Your task to perform on an android device: turn on data saver in the chrome app Image 0: 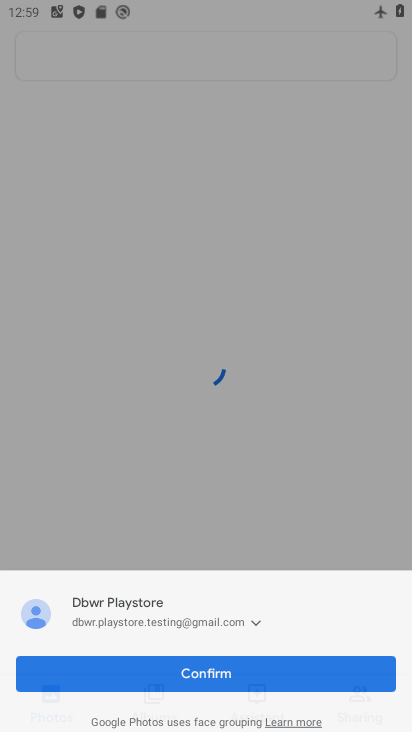
Step 0: press home button
Your task to perform on an android device: turn on data saver in the chrome app Image 1: 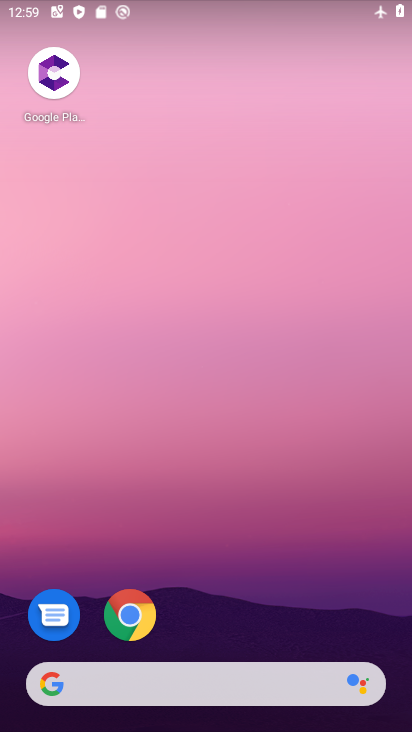
Step 1: click (130, 608)
Your task to perform on an android device: turn on data saver in the chrome app Image 2: 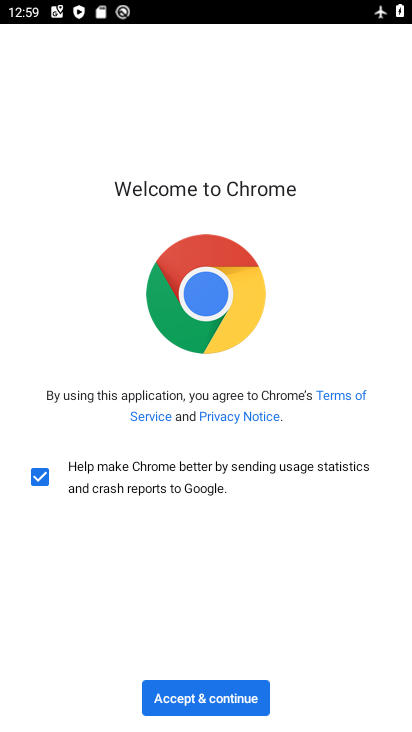
Step 2: click (175, 690)
Your task to perform on an android device: turn on data saver in the chrome app Image 3: 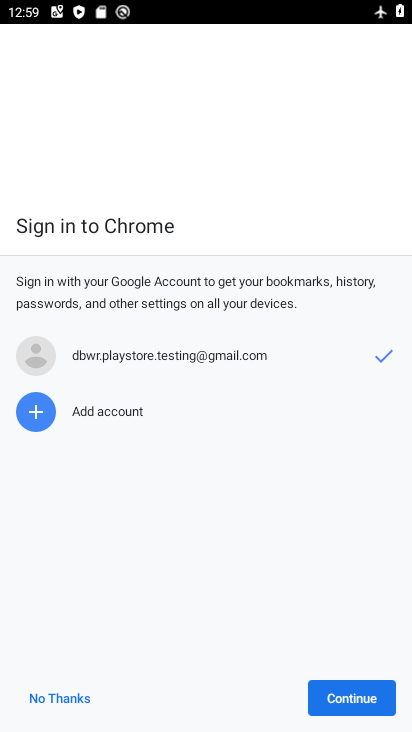
Step 3: click (356, 698)
Your task to perform on an android device: turn on data saver in the chrome app Image 4: 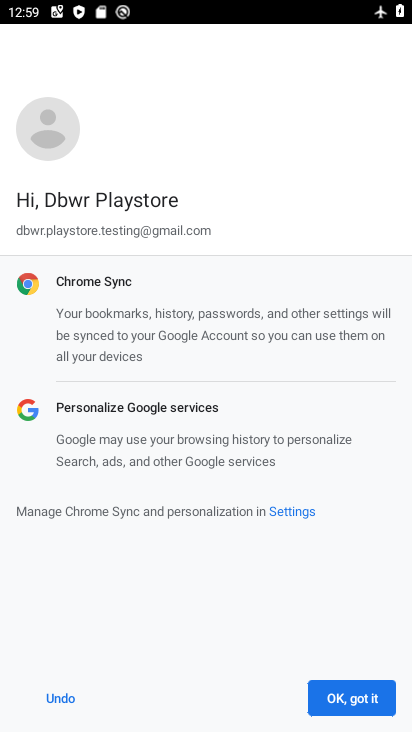
Step 4: click (357, 679)
Your task to perform on an android device: turn on data saver in the chrome app Image 5: 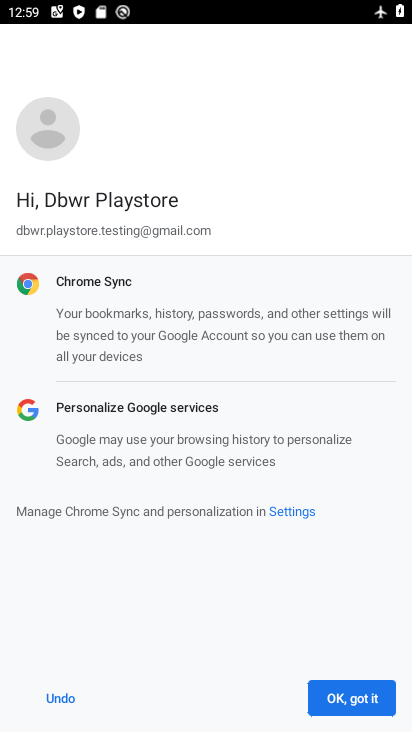
Step 5: click (355, 695)
Your task to perform on an android device: turn on data saver in the chrome app Image 6: 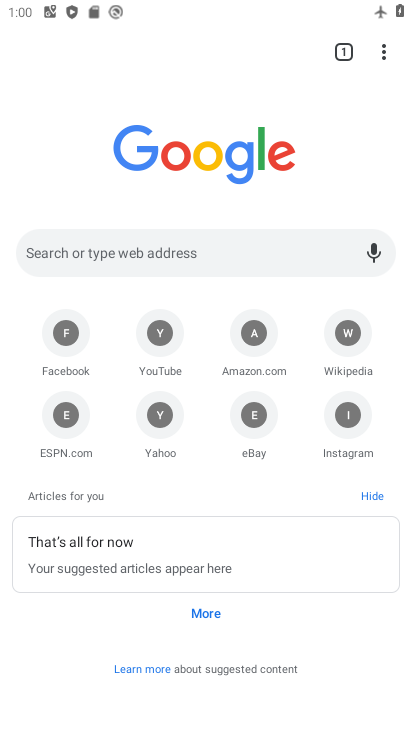
Step 6: click (383, 56)
Your task to perform on an android device: turn on data saver in the chrome app Image 7: 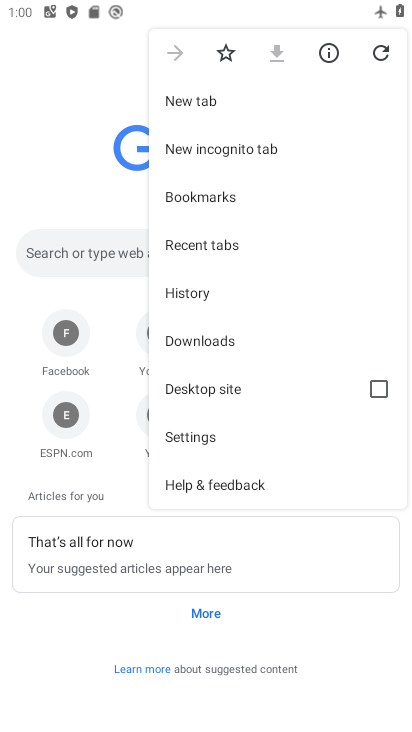
Step 7: click (195, 437)
Your task to perform on an android device: turn on data saver in the chrome app Image 8: 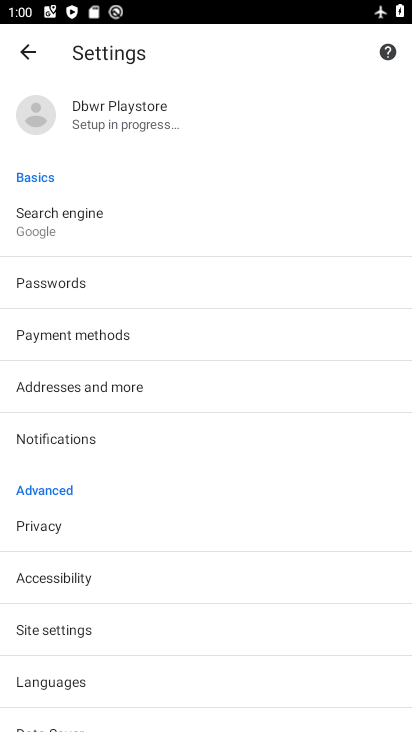
Step 8: drag from (72, 633) to (90, 307)
Your task to perform on an android device: turn on data saver in the chrome app Image 9: 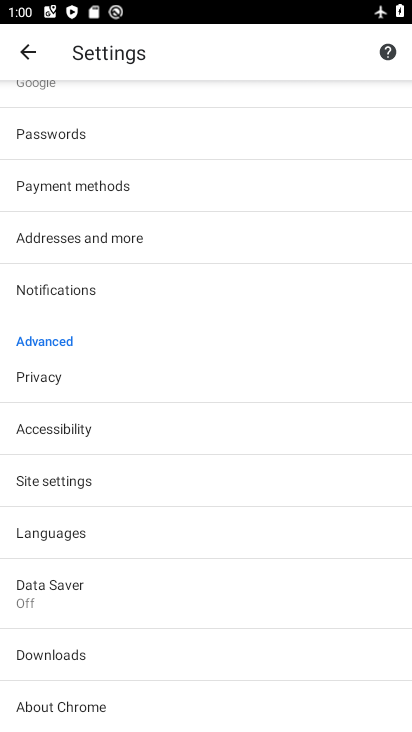
Step 9: click (48, 582)
Your task to perform on an android device: turn on data saver in the chrome app Image 10: 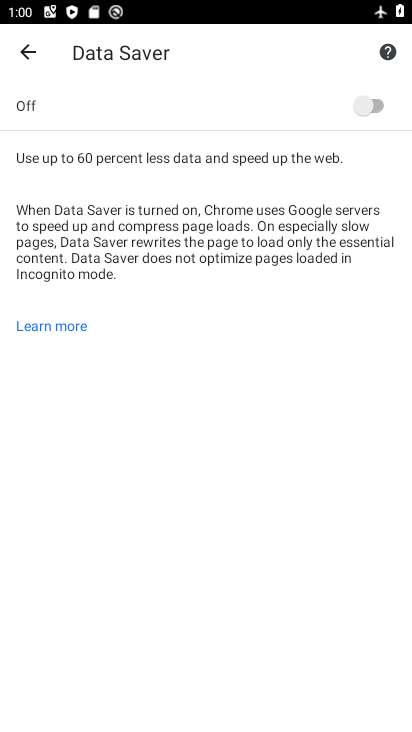
Step 10: click (374, 105)
Your task to perform on an android device: turn on data saver in the chrome app Image 11: 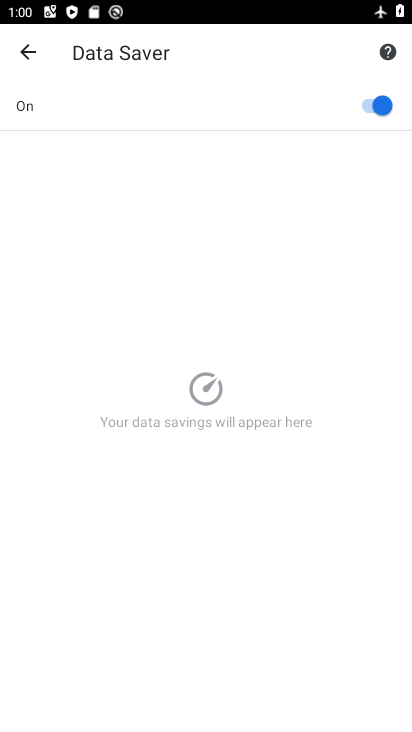
Step 11: task complete